Your task to perform on an android device: What is the news today? Image 0: 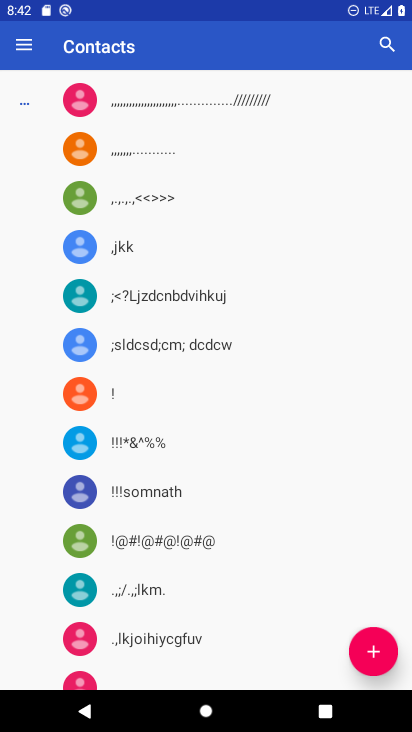
Step 0: press home button
Your task to perform on an android device: What is the news today? Image 1: 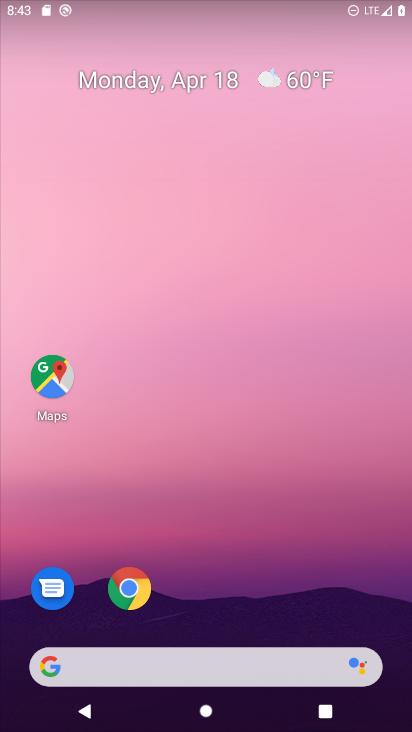
Step 1: click (295, 79)
Your task to perform on an android device: What is the news today? Image 2: 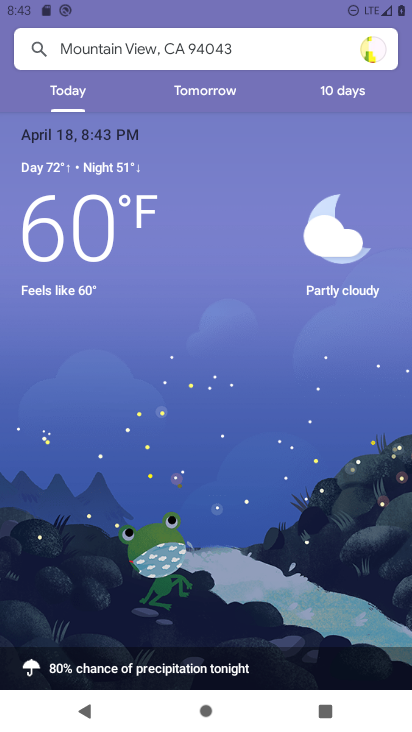
Step 2: task complete